Your task to perform on an android device: Search for seafood restaurants on Google Maps Image 0: 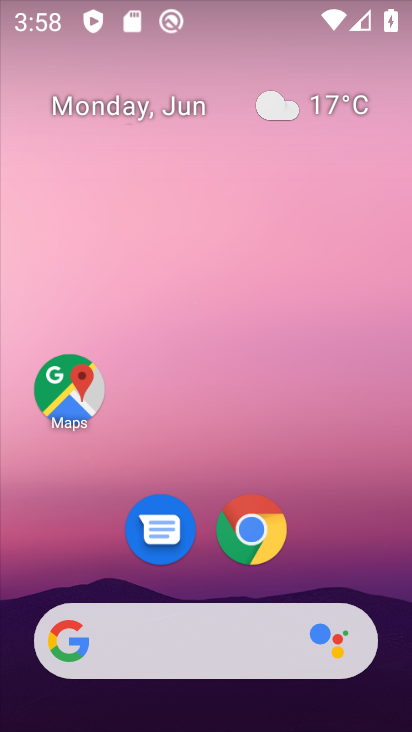
Step 0: click (70, 392)
Your task to perform on an android device: Search for seafood restaurants on Google Maps Image 1: 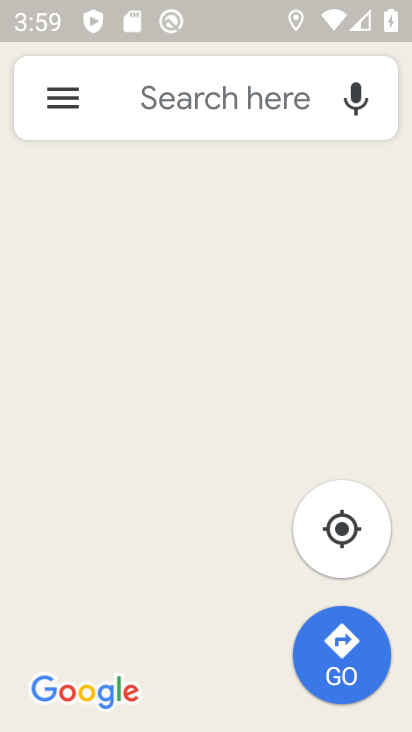
Step 1: click (197, 101)
Your task to perform on an android device: Search for seafood restaurants on Google Maps Image 2: 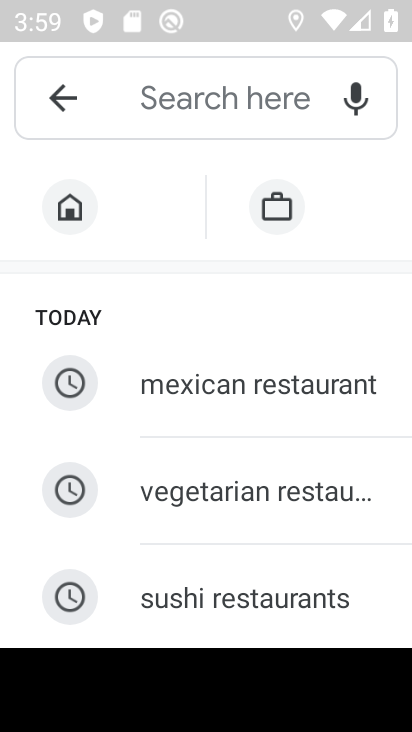
Step 2: type "seafood restaurants"
Your task to perform on an android device: Search for seafood restaurants on Google Maps Image 3: 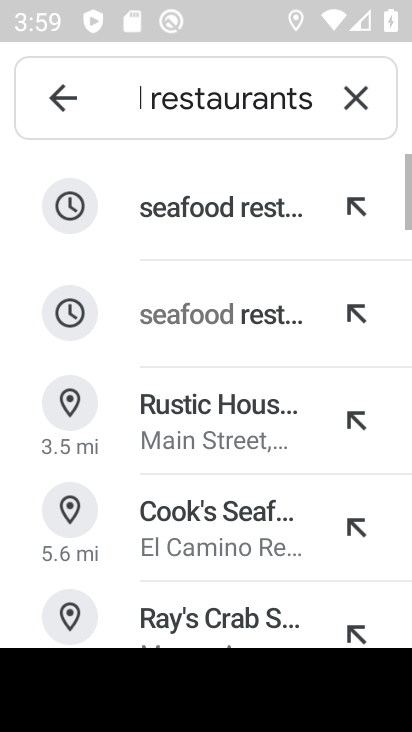
Step 3: click (197, 206)
Your task to perform on an android device: Search for seafood restaurants on Google Maps Image 4: 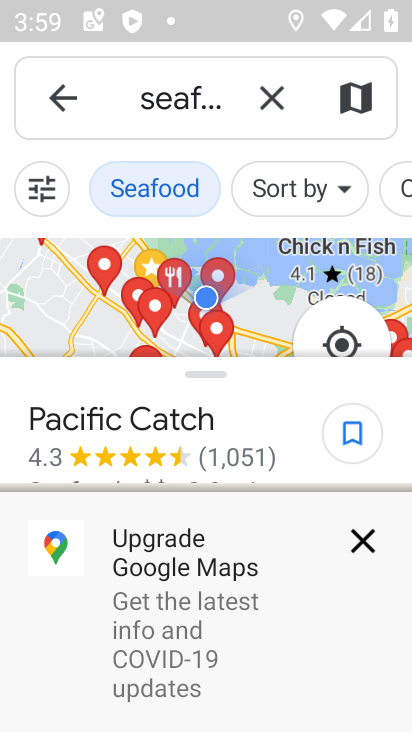
Step 4: click (361, 545)
Your task to perform on an android device: Search for seafood restaurants on Google Maps Image 5: 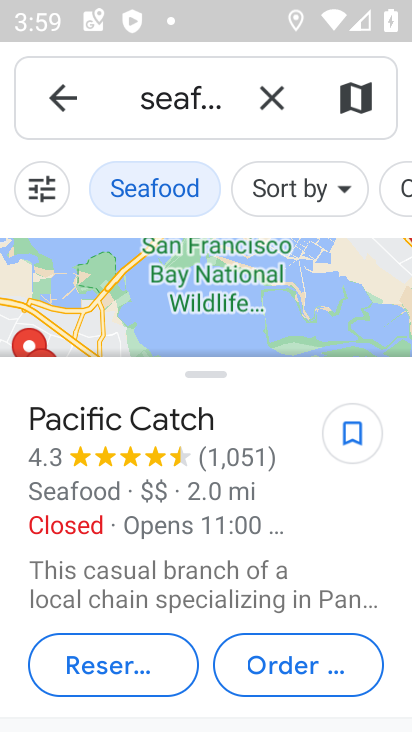
Step 5: task complete